Your task to perform on an android device: Go to Google Image 0: 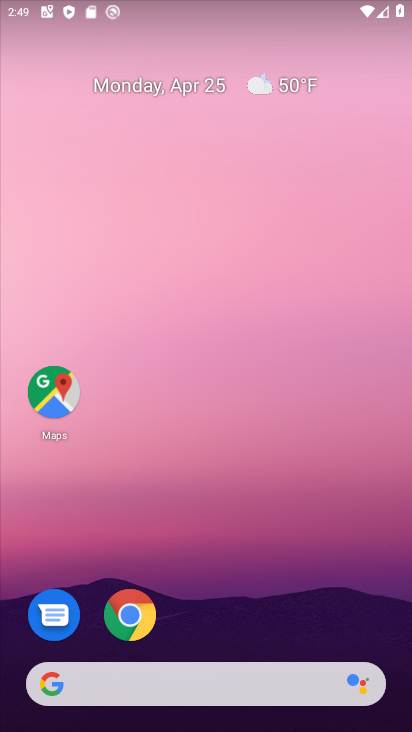
Step 0: drag from (224, 708) to (222, 195)
Your task to perform on an android device: Go to Google Image 1: 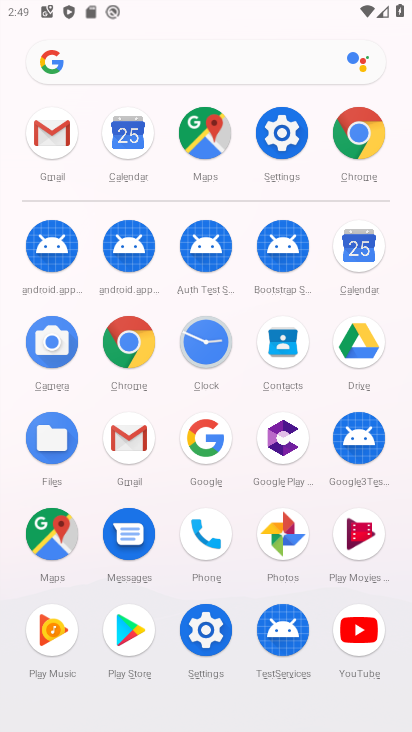
Step 1: click (207, 435)
Your task to perform on an android device: Go to Google Image 2: 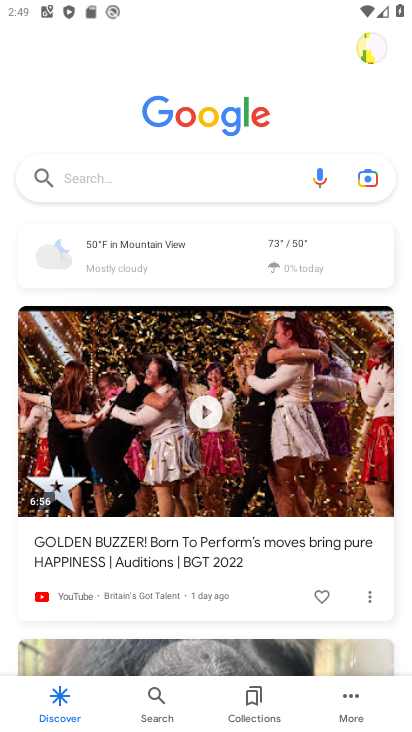
Step 2: task complete